Your task to perform on an android device: toggle sleep mode Image 0: 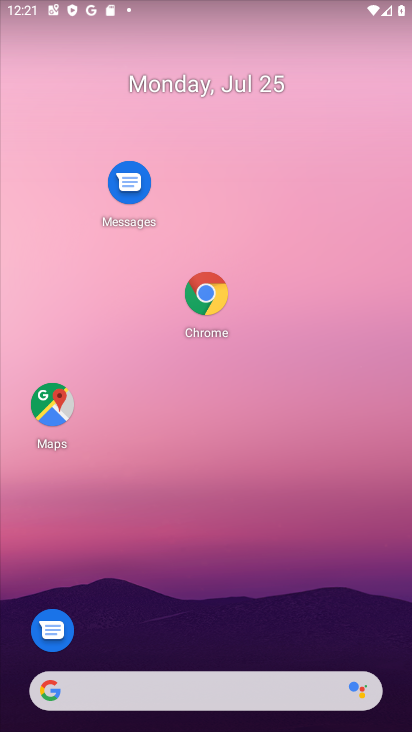
Step 0: press home button
Your task to perform on an android device: toggle sleep mode Image 1: 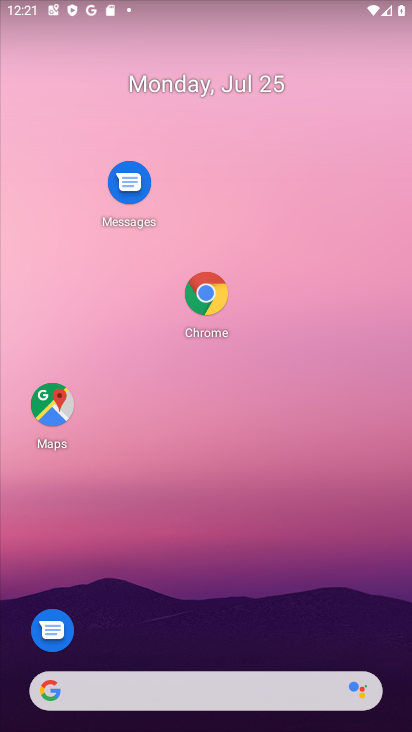
Step 1: drag from (311, 645) to (283, 237)
Your task to perform on an android device: toggle sleep mode Image 2: 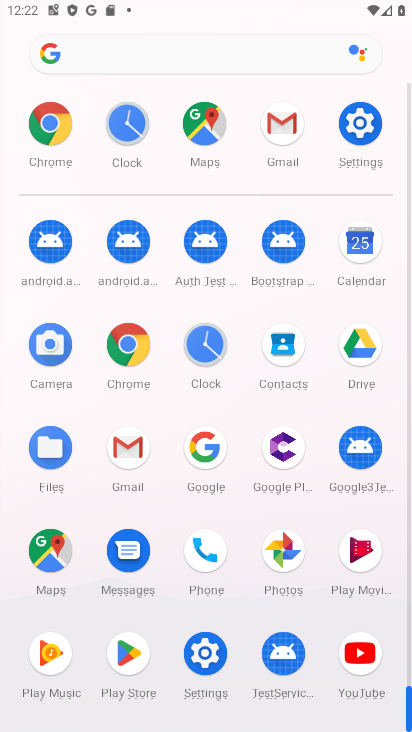
Step 2: click (219, 642)
Your task to perform on an android device: toggle sleep mode Image 3: 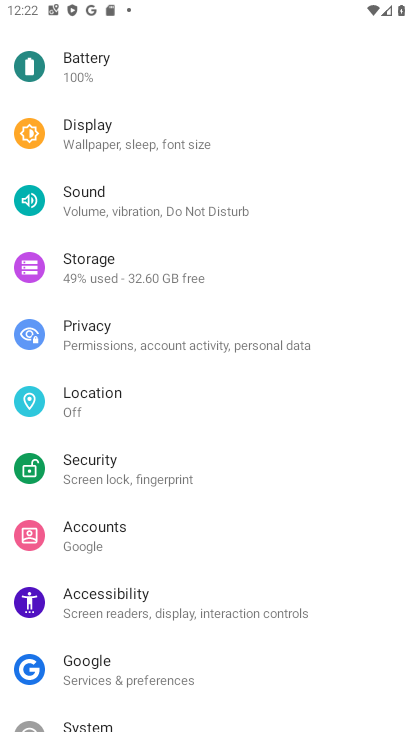
Step 3: click (94, 130)
Your task to perform on an android device: toggle sleep mode Image 4: 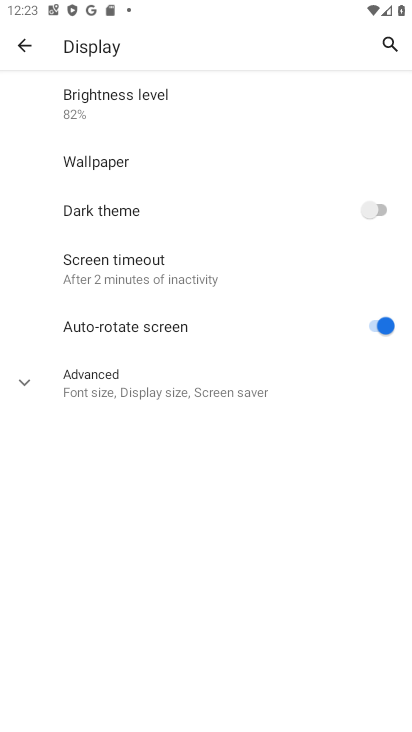
Step 4: task complete